Your task to perform on an android device: check out phone information Image 0: 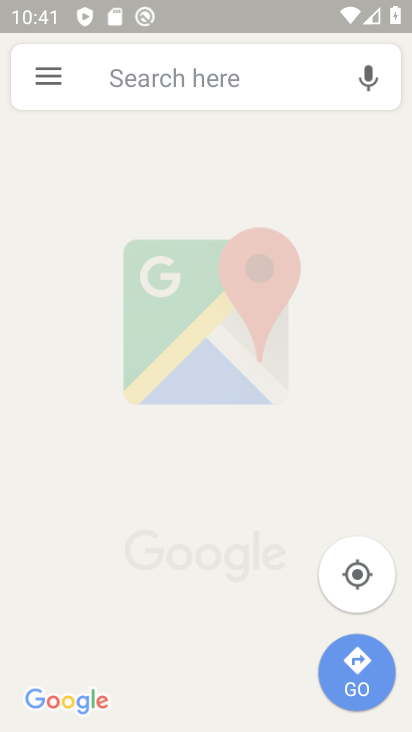
Step 0: drag from (337, 479) to (390, 242)
Your task to perform on an android device: check out phone information Image 1: 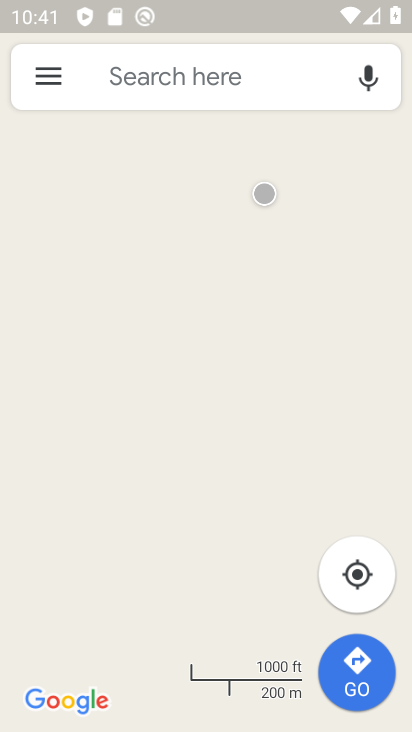
Step 1: press home button
Your task to perform on an android device: check out phone information Image 2: 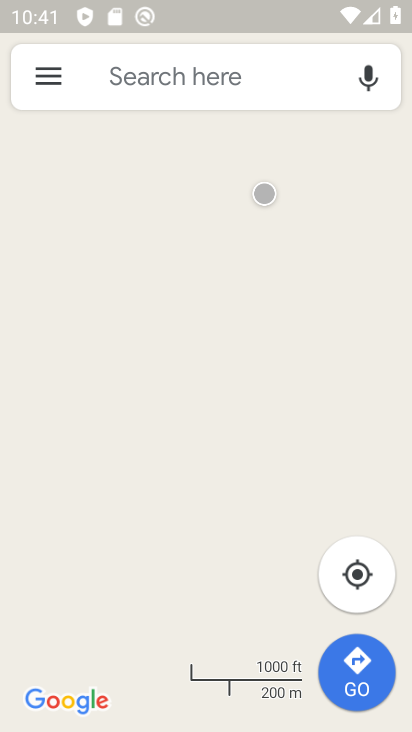
Step 2: drag from (390, 242) to (408, 477)
Your task to perform on an android device: check out phone information Image 3: 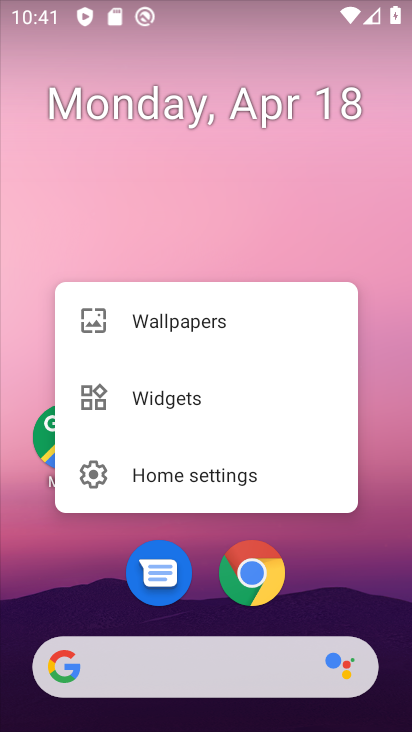
Step 3: click (359, 586)
Your task to perform on an android device: check out phone information Image 4: 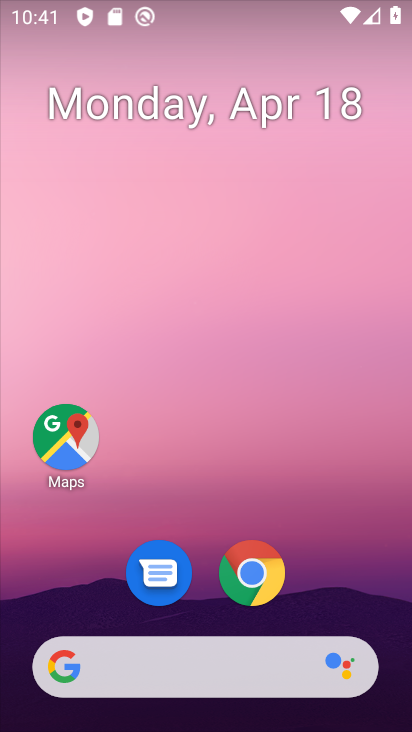
Step 4: drag from (331, 620) to (330, 111)
Your task to perform on an android device: check out phone information Image 5: 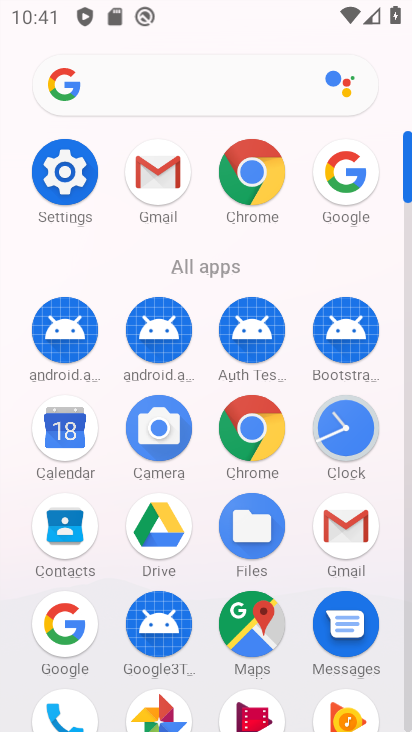
Step 5: click (66, 721)
Your task to perform on an android device: check out phone information Image 6: 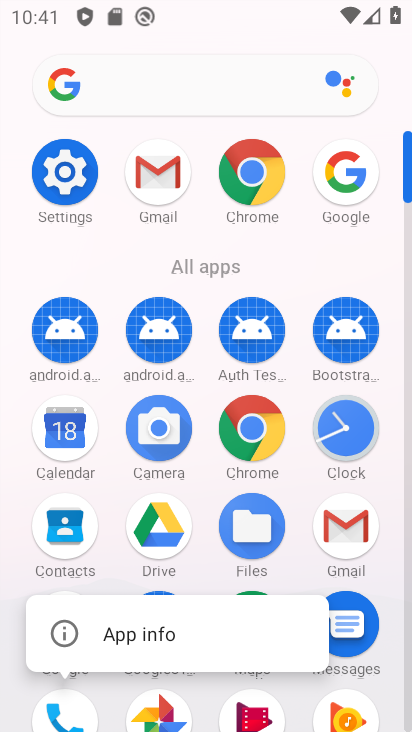
Step 6: click (122, 635)
Your task to perform on an android device: check out phone information Image 7: 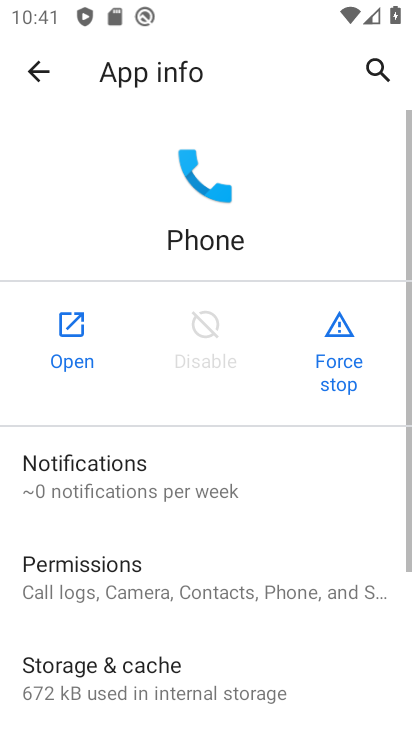
Step 7: drag from (146, 669) to (162, 303)
Your task to perform on an android device: check out phone information Image 8: 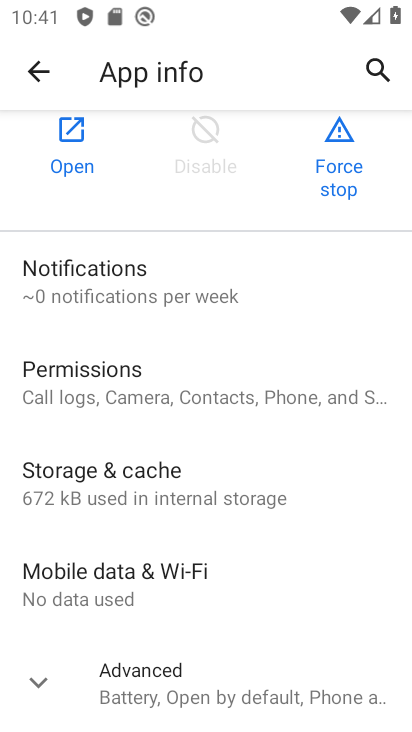
Step 8: drag from (189, 700) to (152, 225)
Your task to perform on an android device: check out phone information Image 9: 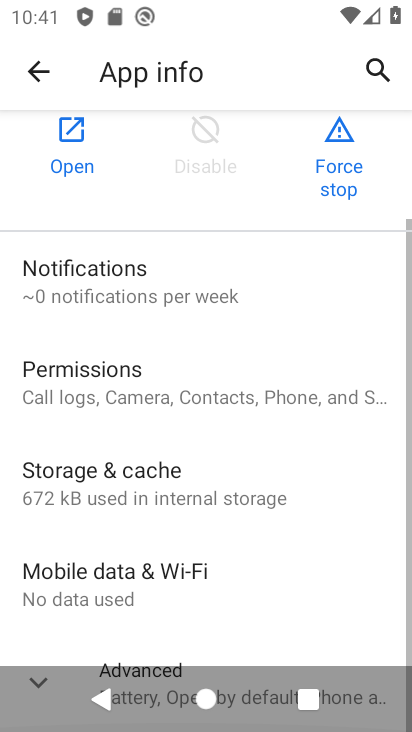
Step 9: click (36, 75)
Your task to perform on an android device: check out phone information Image 10: 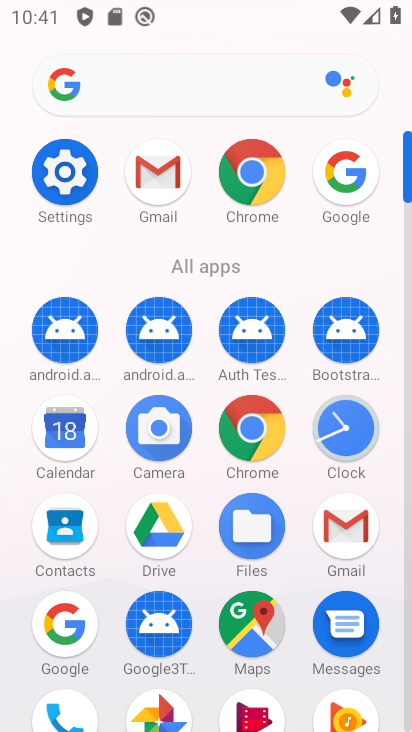
Step 10: click (58, 718)
Your task to perform on an android device: check out phone information Image 11: 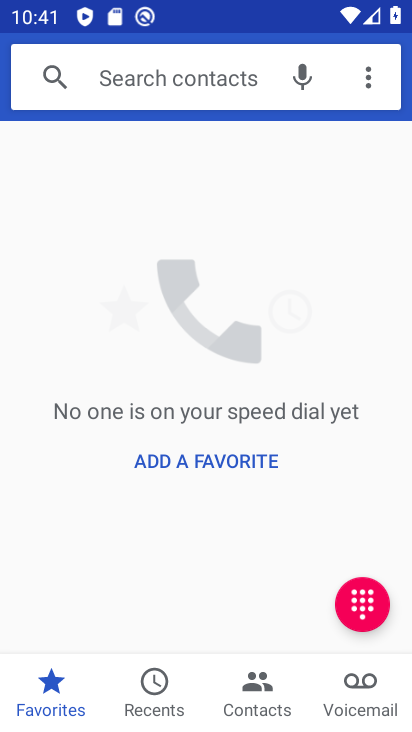
Step 11: click (360, 74)
Your task to perform on an android device: check out phone information Image 12: 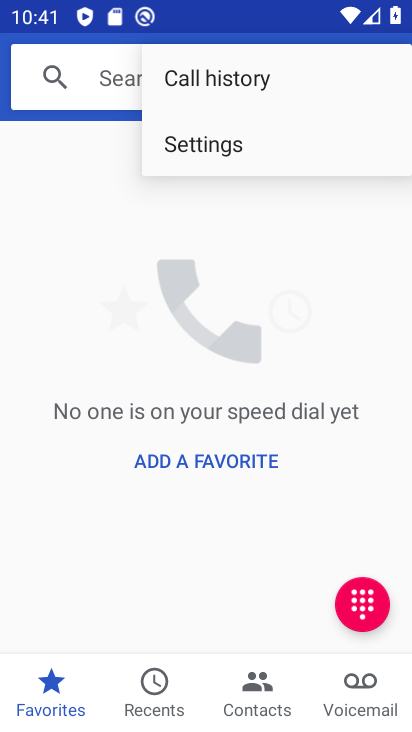
Step 12: click (221, 137)
Your task to perform on an android device: check out phone information Image 13: 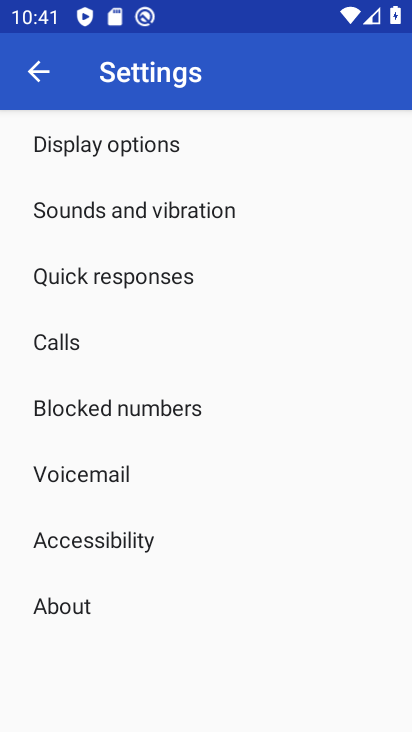
Step 13: click (61, 606)
Your task to perform on an android device: check out phone information Image 14: 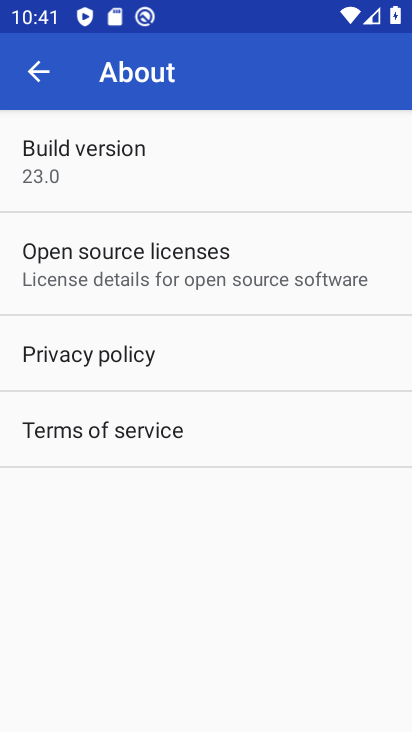
Step 14: task complete